Your task to perform on an android device: change the clock style Image 0: 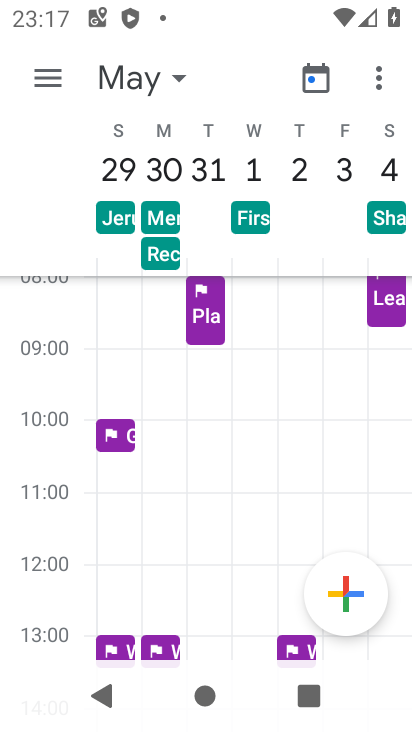
Step 0: press home button
Your task to perform on an android device: change the clock style Image 1: 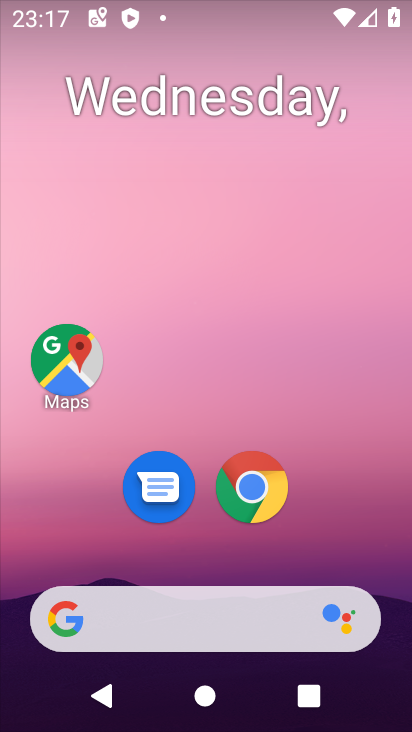
Step 1: drag from (365, 498) to (399, 14)
Your task to perform on an android device: change the clock style Image 2: 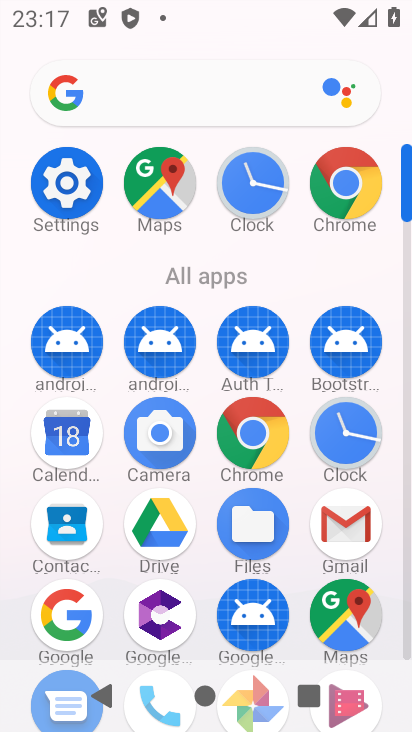
Step 2: click (246, 192)
Your task to perform on an android device: change the clock style Image 3: 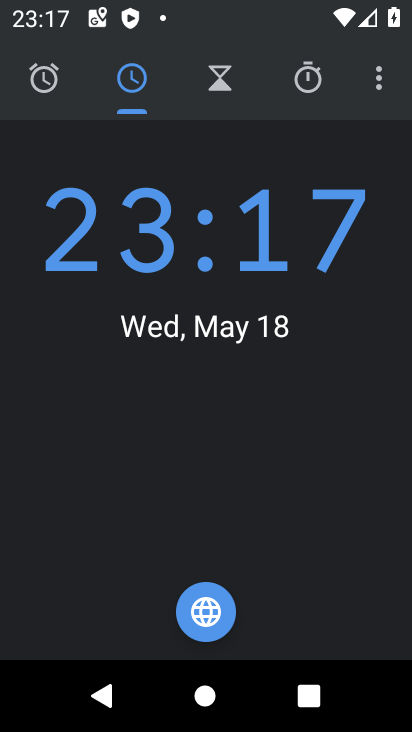
Step 3: click (376, 81)
Your task to perform on an android device: change the clock style Image 4: 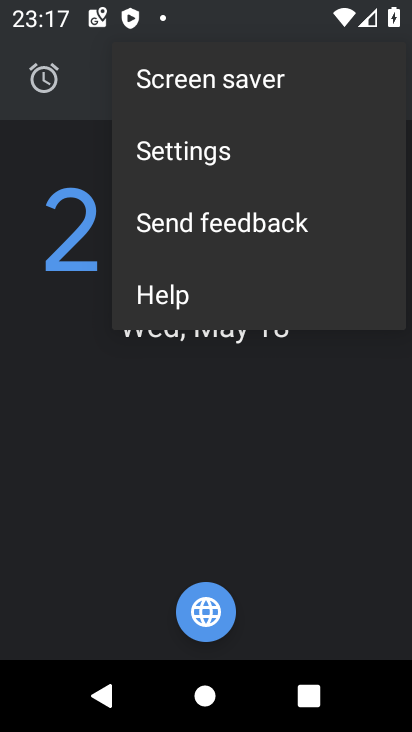
Step 4: click (216, 156)
Your task to perform on an android device: change the clock style Image 5: 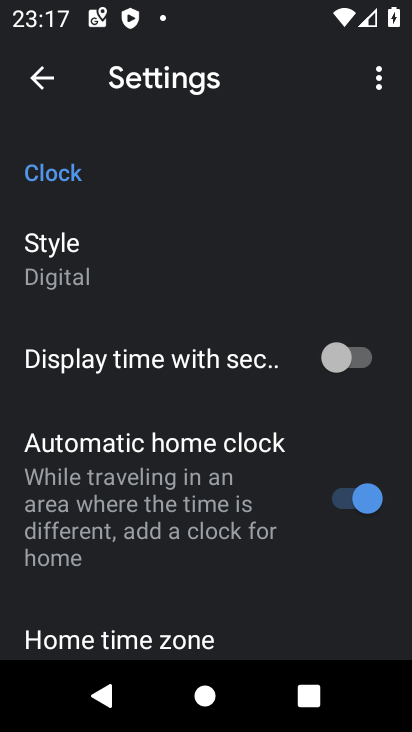
Step 5: click (77, 271)
Your task to perform on an android device: change the clock style Image 6: 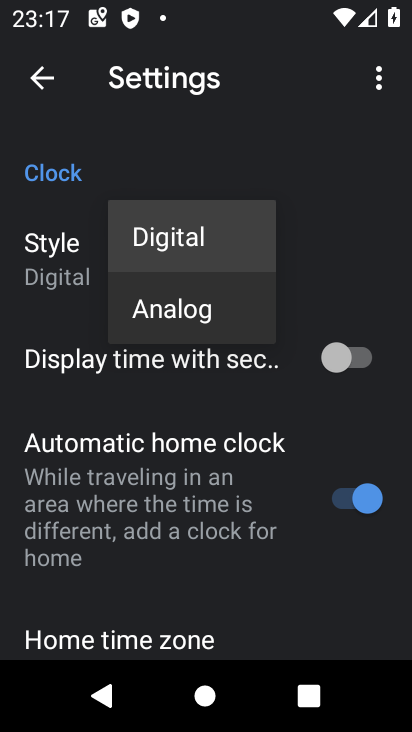
Step 6: click (140, 311)
Your task to perform on an android device: change the clock style Image 7: 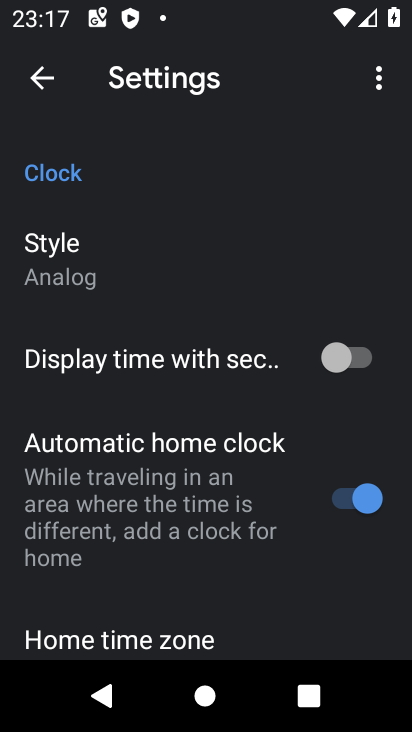
Step 7: task complete